Your task to perform on an android device: turn off airplane mode Image 0: 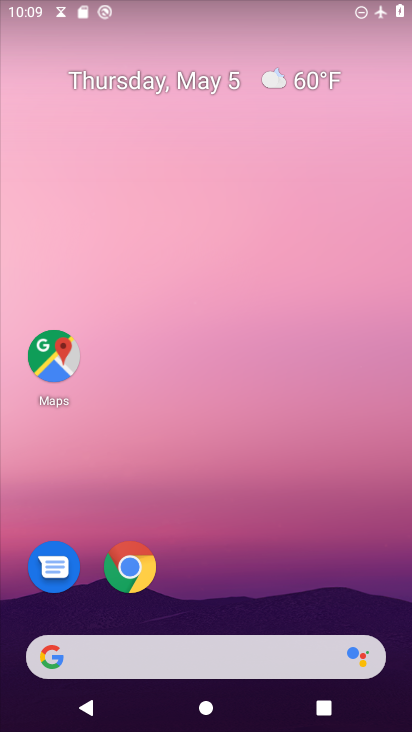
Step 0: drag from (208, 717) to (199, 280)
Your task to perform on an android device: turn off airplane mode Image 1: 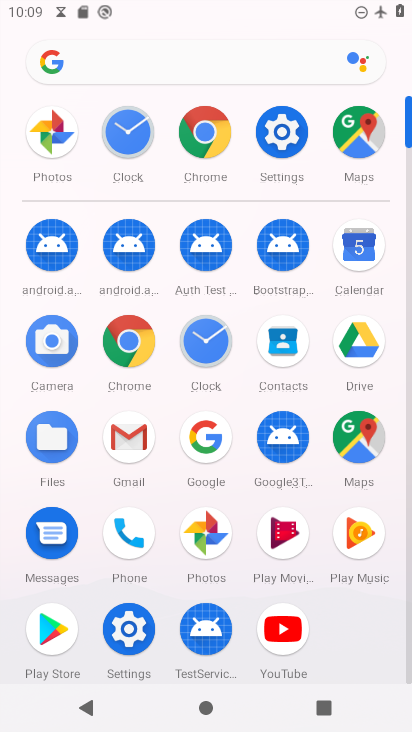
Step 1: click (284, 130)
Your task to perform on an android device: turn off airplane mode Image 2: 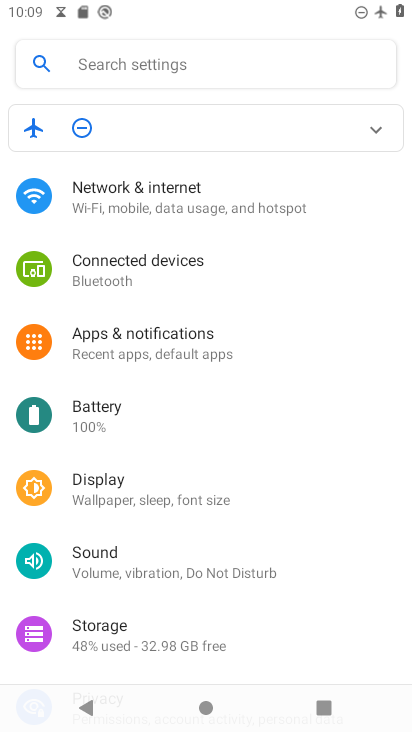
Step 2: click (158, 199)
Your task to perform on an android device: turn off airplane mode Image 3: 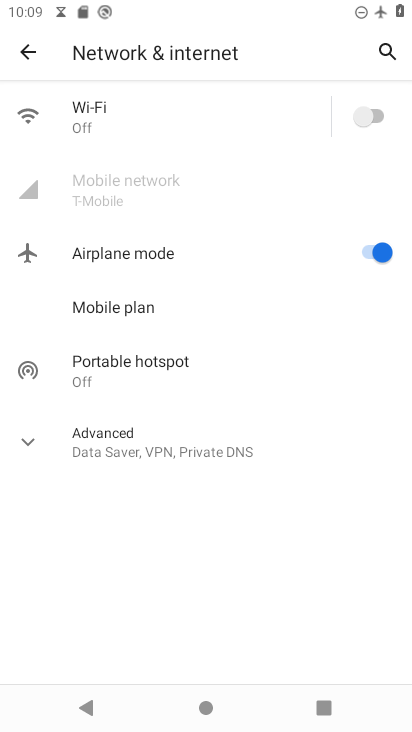
Step 3: click (373, 255)
Your task to perform on an android device: turn off airplane mode Image 4: 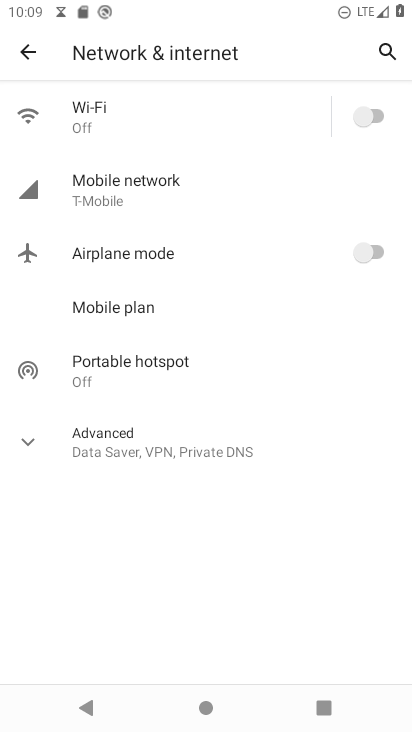
Step 4: task complete